Your task to perform on an android device: Open Chrome and go to settings Image 0: 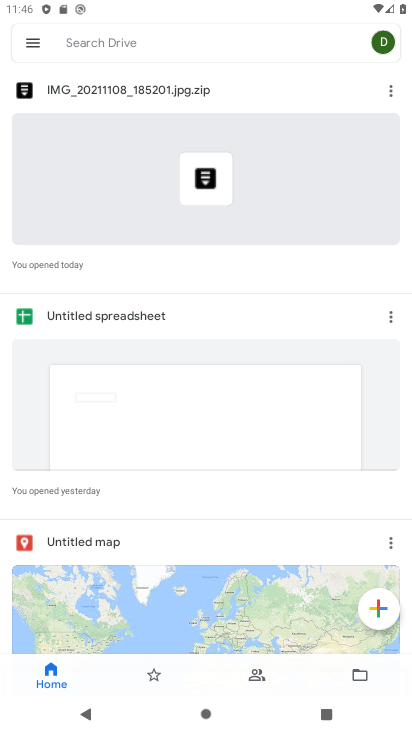
Step 0: press home button
Your task to perform on an android device: Open Chrome and go to settings Image 1: 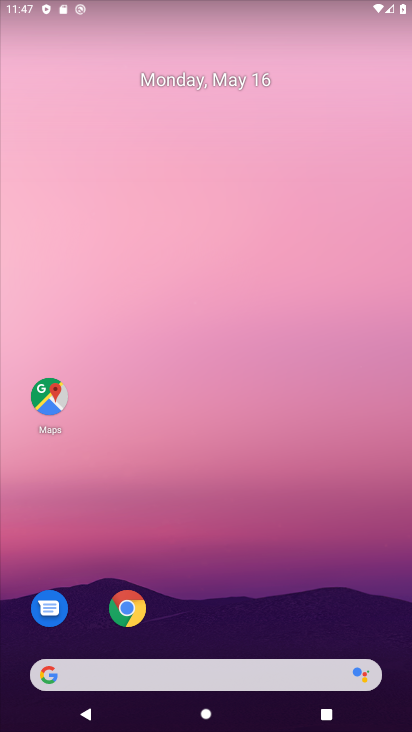
Step 1: drag from (340, 611) to (354, 128)
Your task to perform on an android device: Open Chrome and go to settings Image 2: 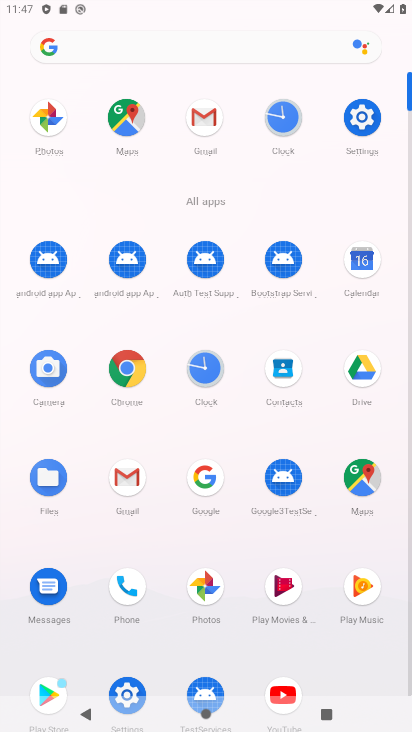
Step 2: click (133, 369)
Your task to perform on an android device: Open Chrome and go to settings Image 3: 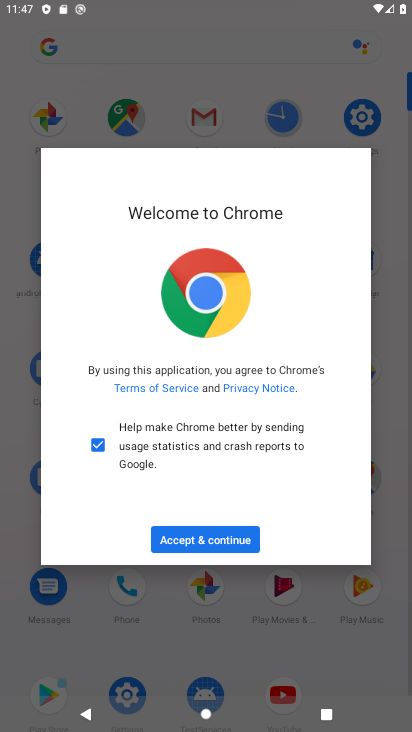
Step 3: click (195, 547)
Your task to perform on an android device: Open Chrome and go to settings Image 4: 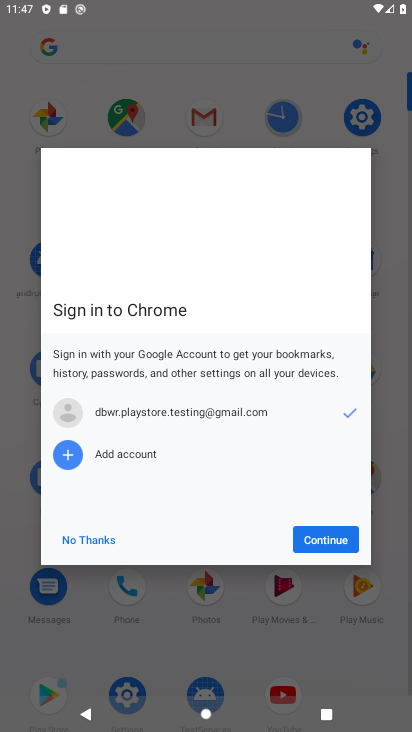
Step 4: click (334, 536)
Your task to perform on an android device: Open Chrome and go to settings Image 5: 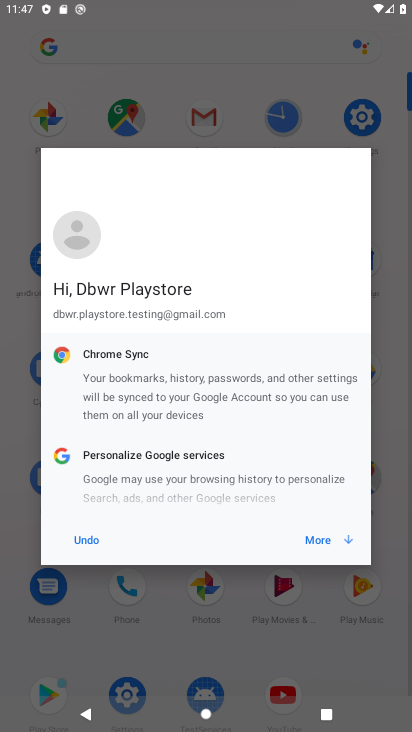
Step 5: click (334, 536)
Your task to perform on an android device: Open Chrome and go to settings Image 6: 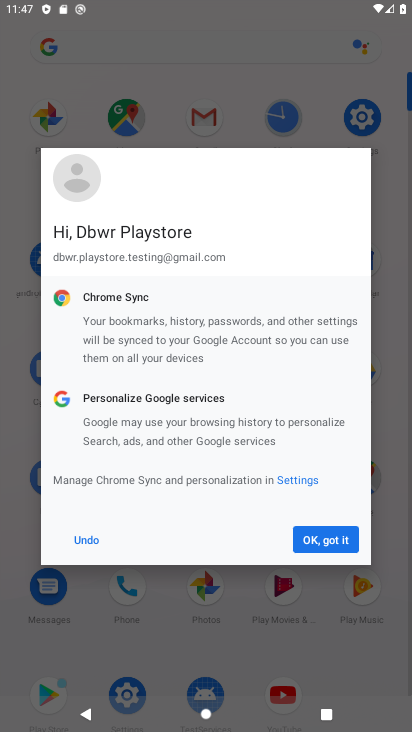
Step 6: click (334, 536)
Your task to perform on an android device: Open Chrome and go to settings Image 7: 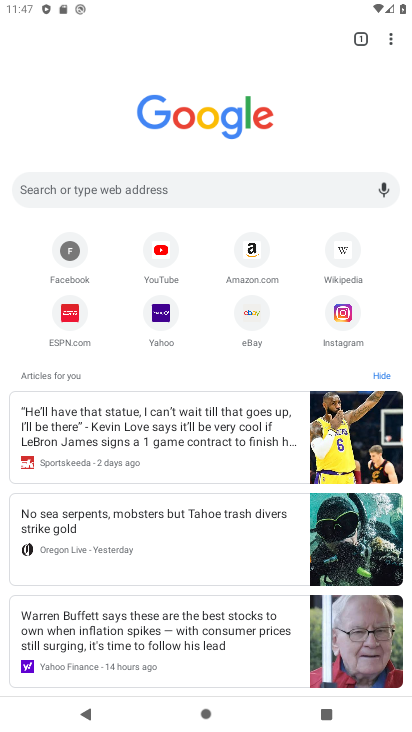
Step 7: click (390, 39)
Your task to perform on an android device: Open Chrome and go to settings Image 8: 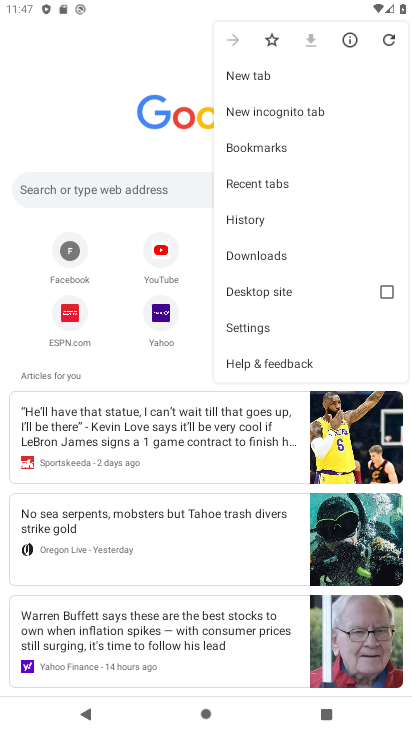
Step 8: click (266, 333)
Your task to perform on an android device: Open Chrome and go to settings Image 9: 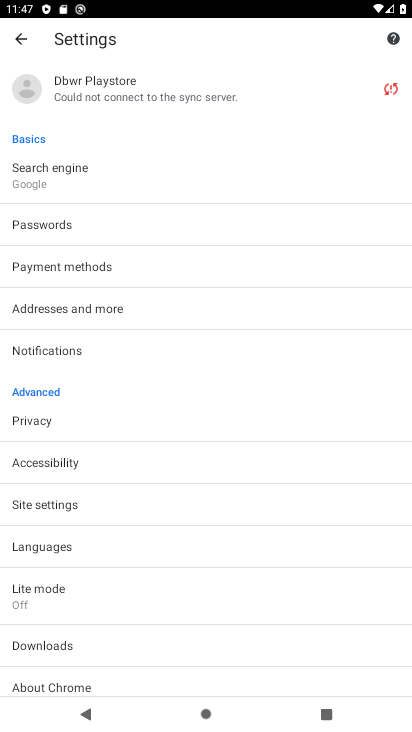
Step 9: task complete